Your task to perform on an android device: open chrome and create a bookmark for the current page Image 0: 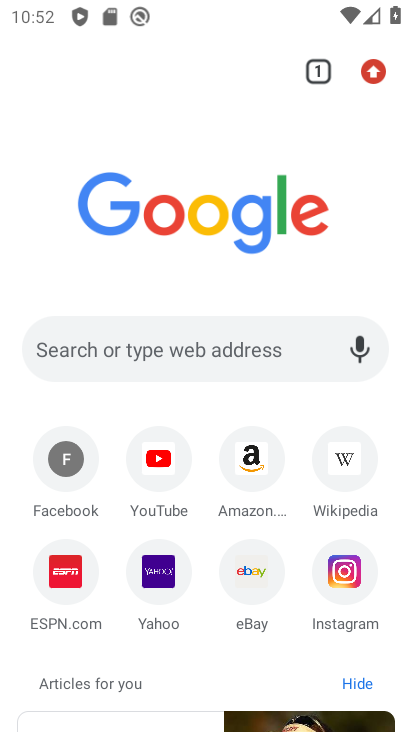
Step 0: click (372, 77)
Your task to perform on an android device: open chrome and create a bookmark for the current page Image 1: 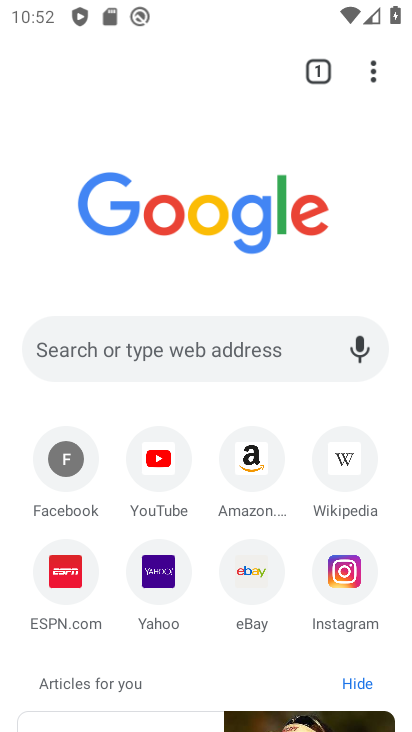
Step 1: click (372, 73)
Your task to perform on an android device: open chrome and create a bookmark for the current page Image 2: 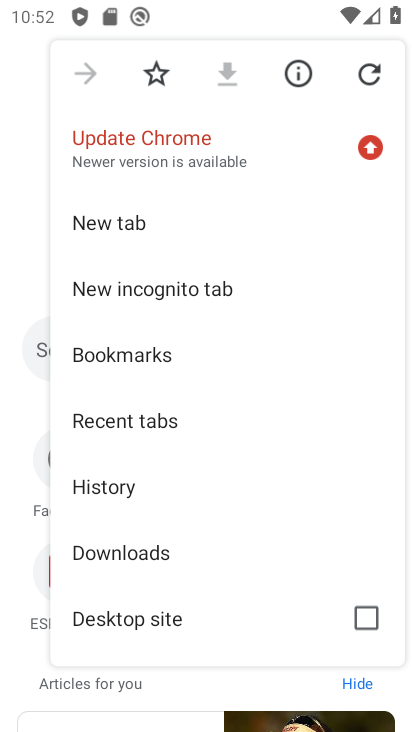
Step 2: click (154, 77)
Your task to perform on an android device: open chrome and create a bookmark for the current page Image 3: 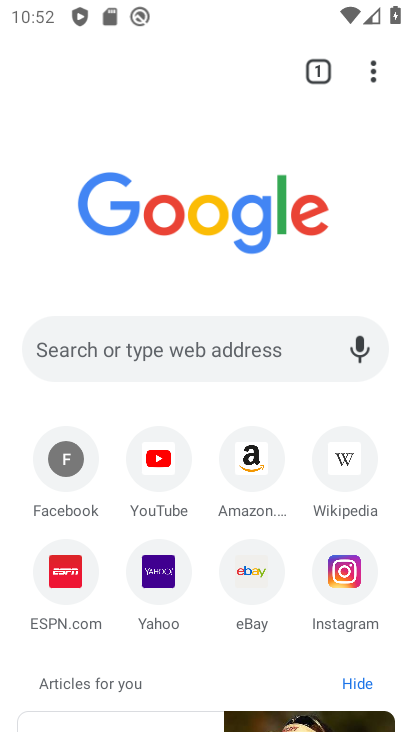
Step 3: task complete